Your task to perform on an android device: Go to Google maps Image 0: 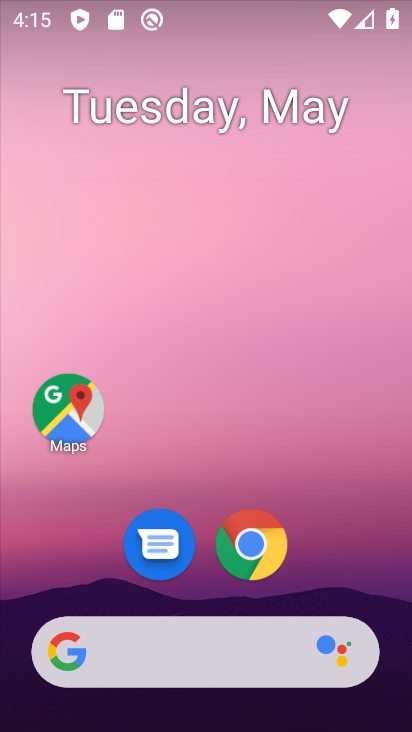
Step 0: click (58, 388)
Your task to perform on an android device: Go to Google maps Image 1: 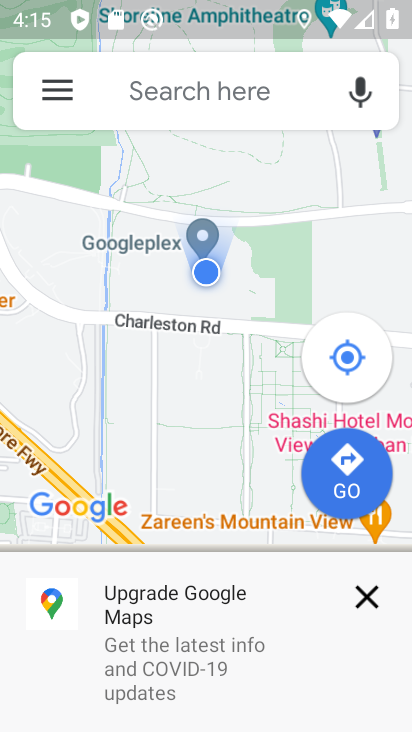
Step 1: task complete